Your task to perform on an android device: delete a single message in the gmail app Image 0: 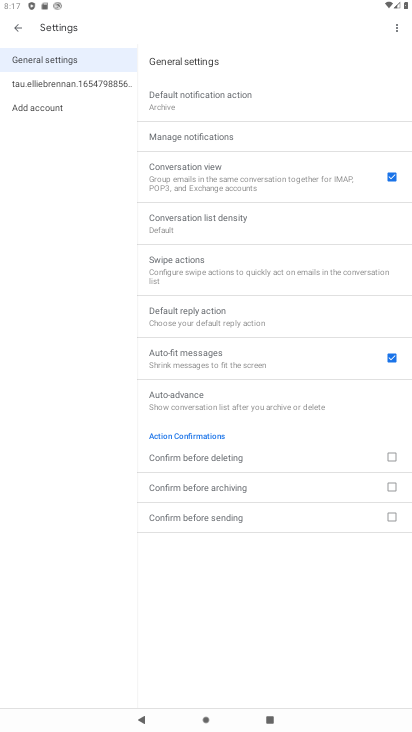
Step 0: press home button
Your task to perform on an android device: delete a single message in the gmail app Image 1: 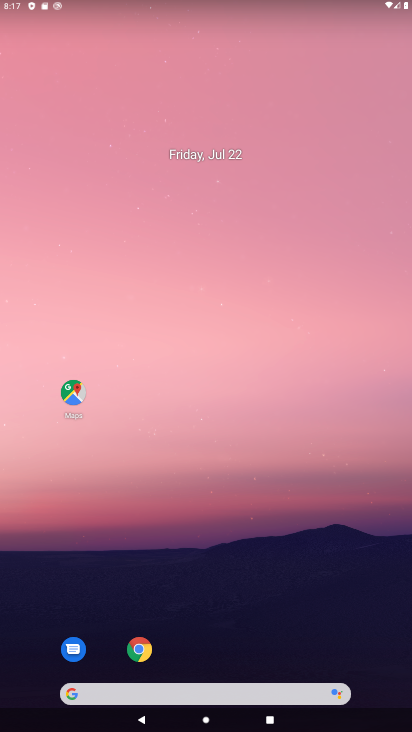
Step 1: drag from (225, 570) to (208, 118)
Your task to perform on an android device: delete a single message in the gmail app Image 2: 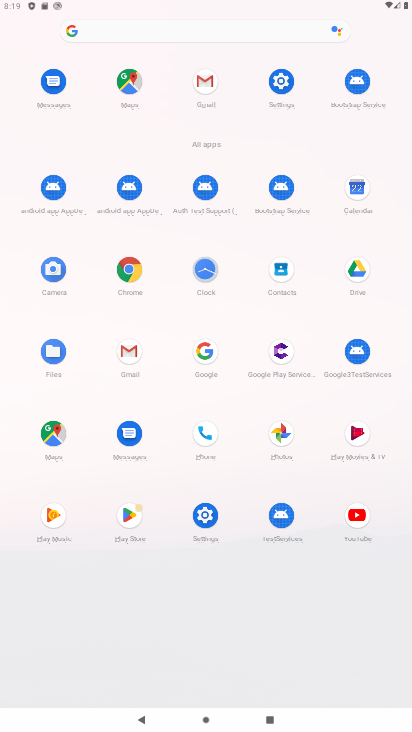
Step 2: click (128, 353)
Your task to perform on an android device: delete a single message in the gmail app Image 3: 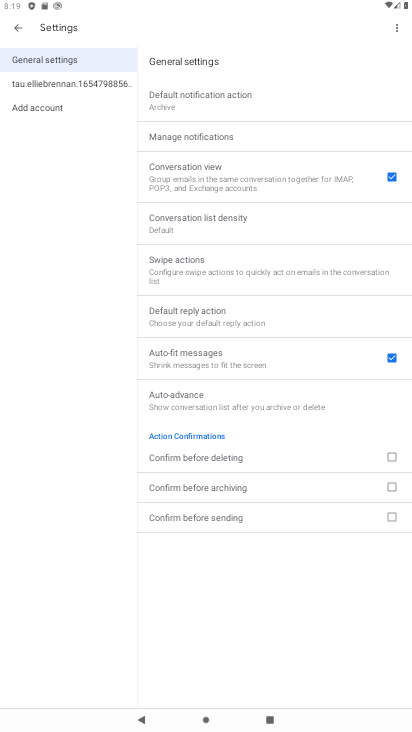
Step 3: press home button
Your task to perform on an android device: delete a single message in the gmail app Image 4: 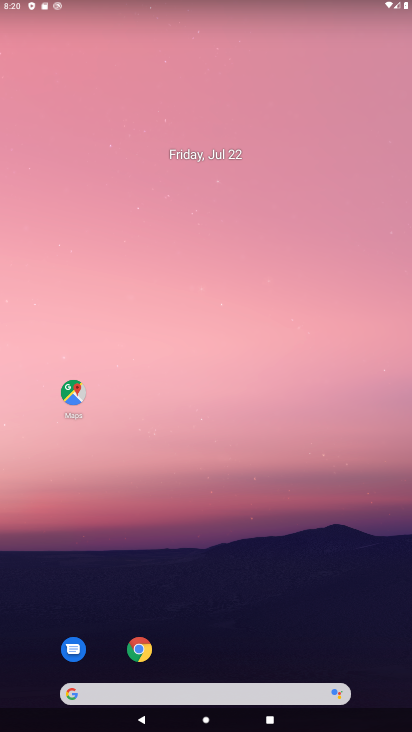
Step 4: drag from (235, 569) to (216, 159)
Your task to perform on an android device: delete a single message in the gmail app Image 5: 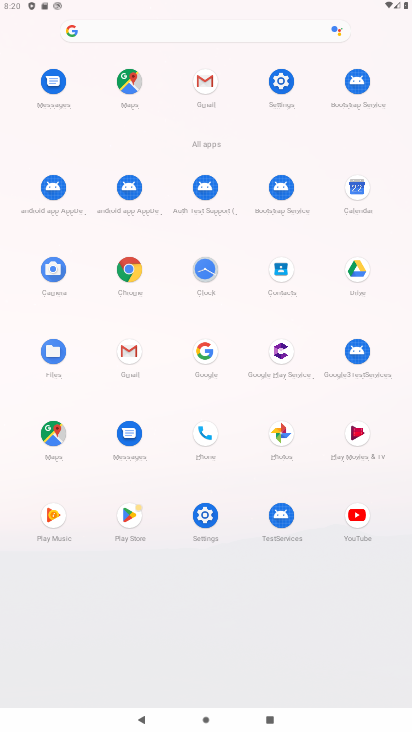
Step 5: press home button
Your task to perform on an android device: delete a single message in the gmail app Image 6: 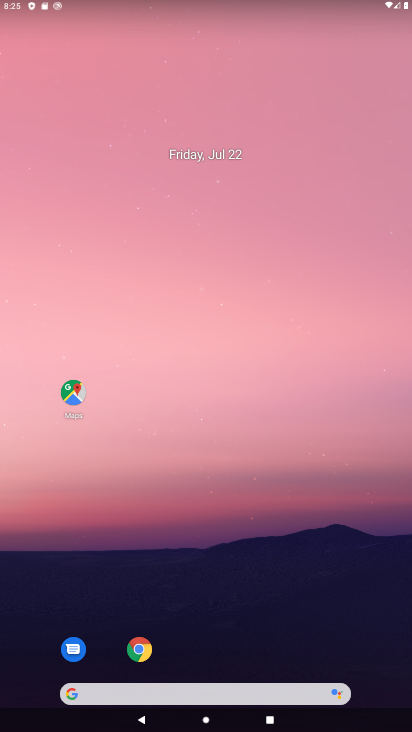
Step 6: press home button
Your task to perform on an android device: delete a single message in the gmail app Image 7: 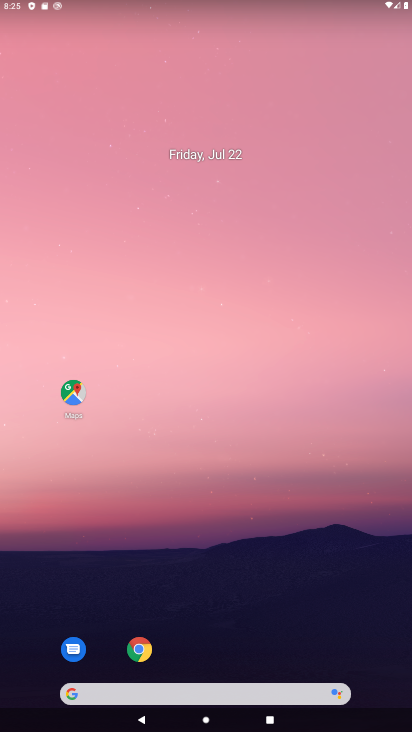
Step 7: press home button
Your task to perform on an android device: delete a single message in the gmail app Image 8: 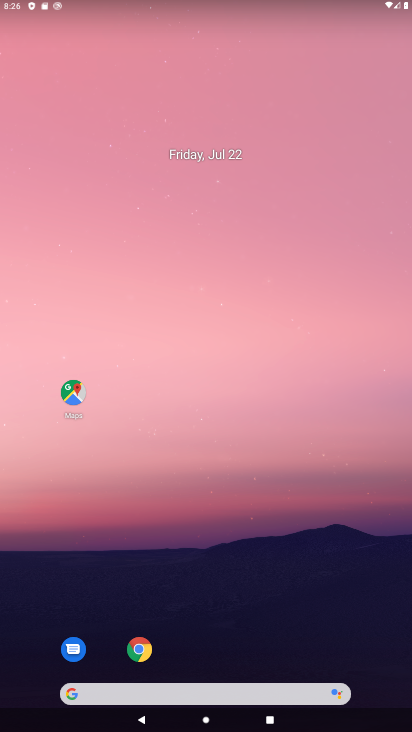
Step 8: drag from (299, 601) to (347, 81)
Your task to perform on an android device: delete a single message in the gmail app Image 9: 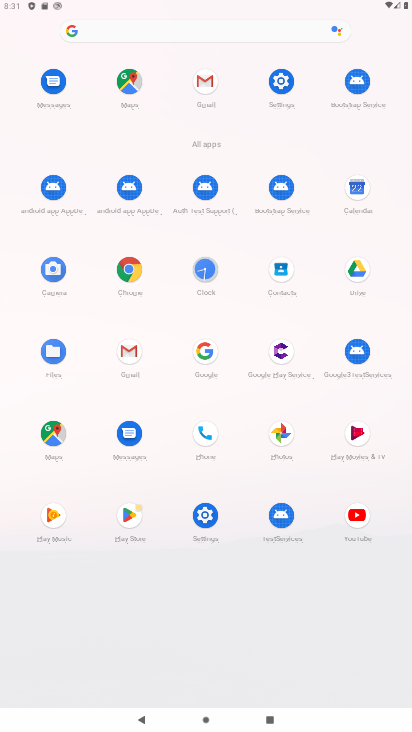
Step 9: press home button
Your task to perform on an android device: delete a single message in the gmail app Image 10: 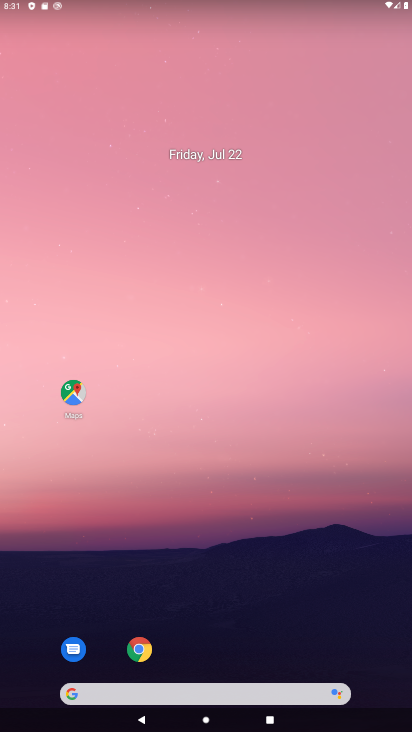
Step 10: drag from (210, 634) to (232, 273)
Your task to perform on an android device: delete a single message in the gmail app Image 11: 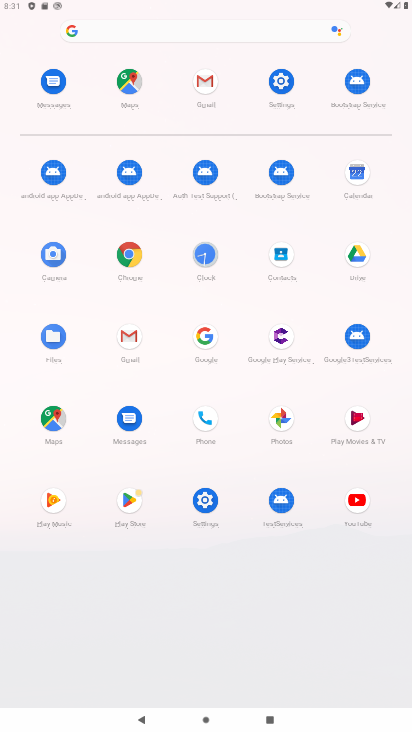
Step 11: click (133, 335)
Your task to perform on an android device: delete a single message in the gmail app Image 12: 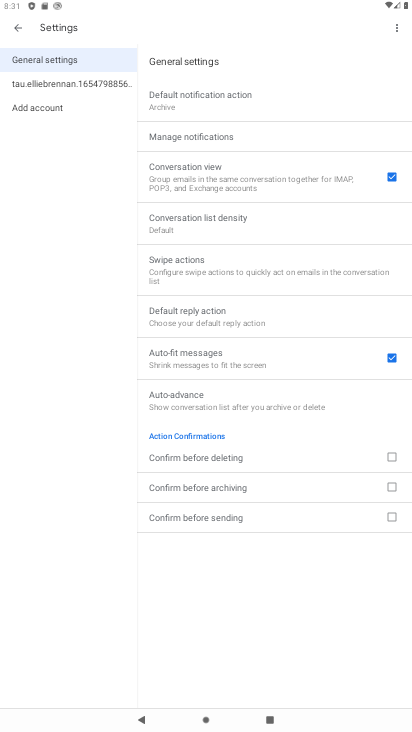
Step 12: click (19, 25)
Your task to perform on an android device: delete a single message in the gmail app Image 13: 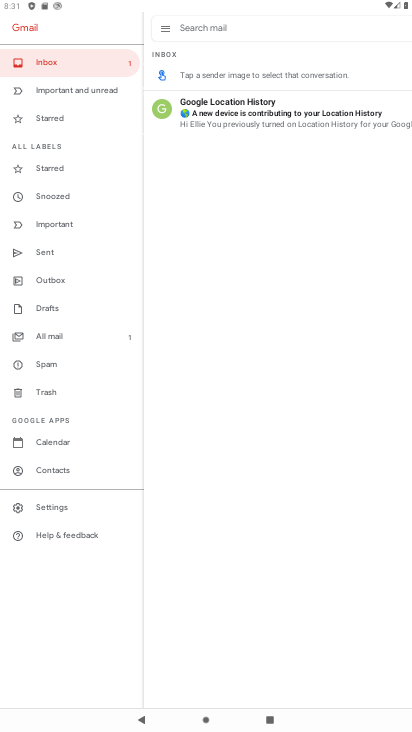
Step 13: click (159, 107)
Your task to perform on an android device: delete a single message in the gmail app Image 14: 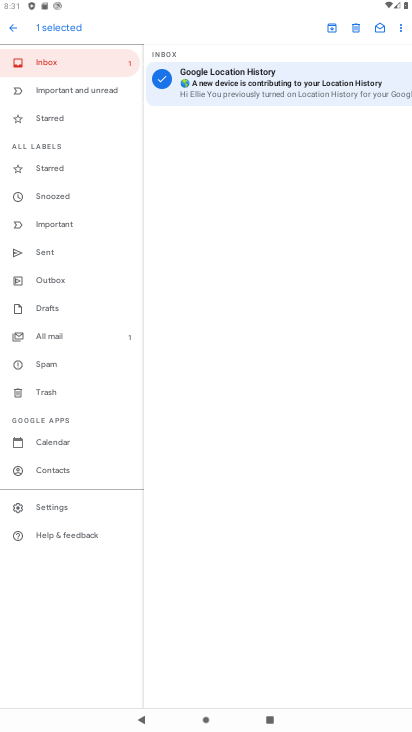
Step 14: click (358, 26)
Your task to perform on an android device: delete a single message in the gmail app Image 15: 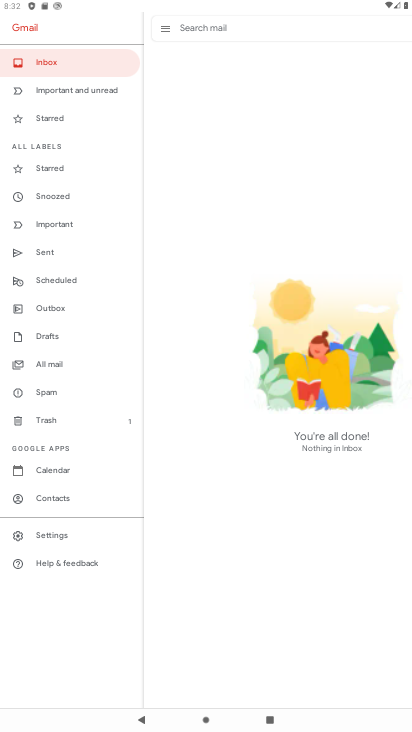
Step 15: task complete